Your task to perform on an android device: Search for Mexican restaurants on Maps Image 0: 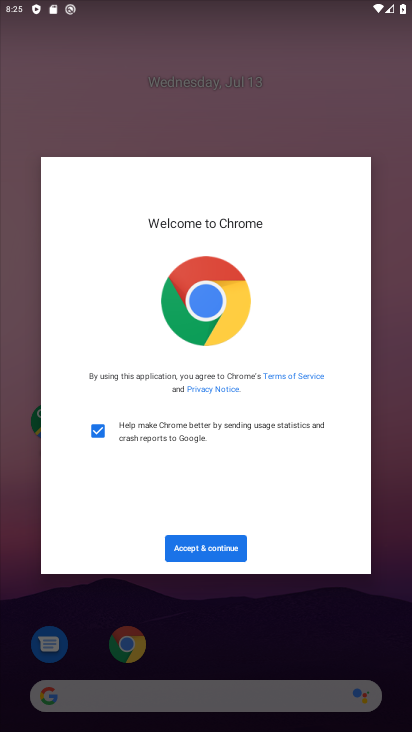
Step 0: press home button
Your task to perform on an android device: Search for Mexican restaurants on Maps Image 1: 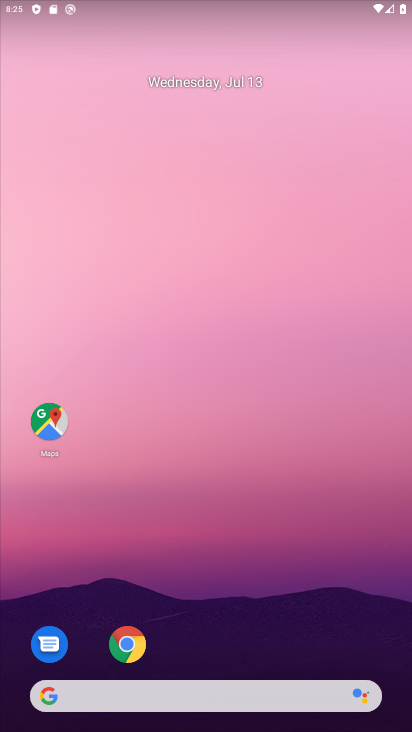
Step 1: click (47, 419)
Your task to perform on an android device: Search for Mexican restaurants on Maps Image 2: 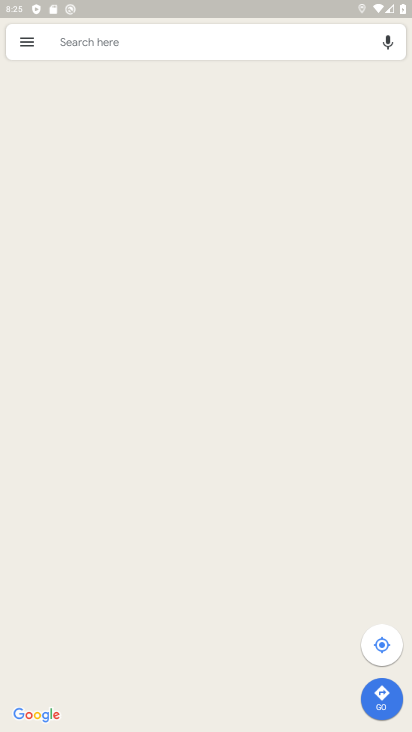
Step 2: click (161, 38)
Your task to perform on an android device: Search for Mexican restaurants on Maps Image 3: 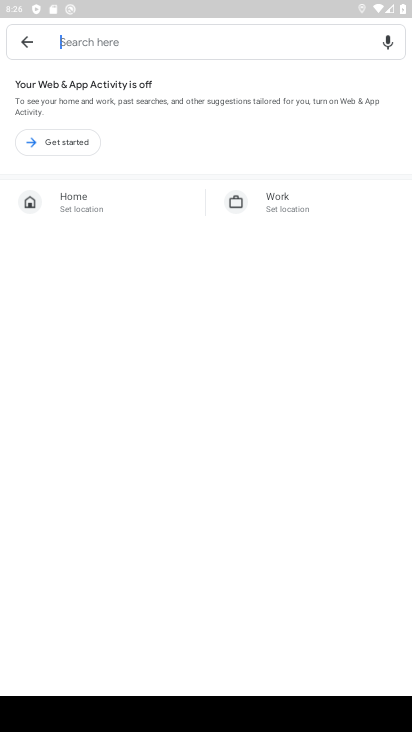
Step 3: type " Mexican restaurants"
Your task to perform on an android device: Search for Mexican restaurants on Maps Image 4: 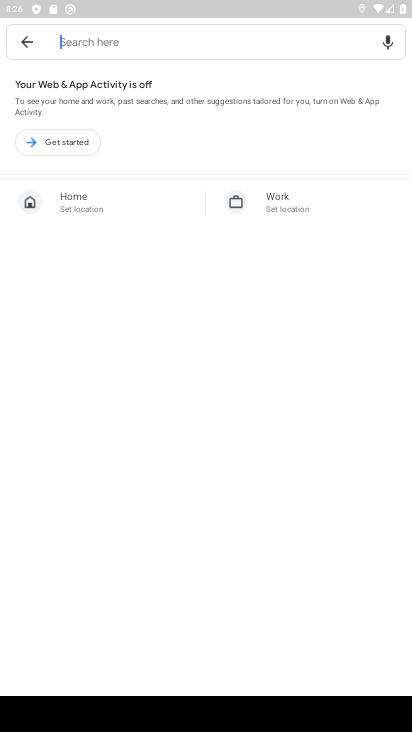
Step 4: click (77, 45)
Your task to perform on an android device: Search for Mexican restaurants on Maps Image 5: 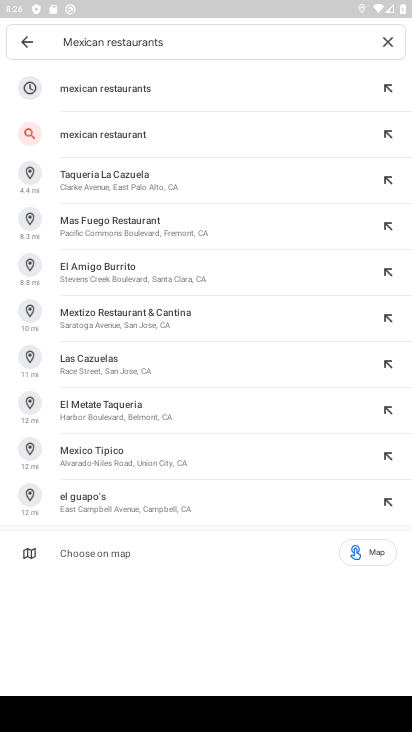
Step 5: press enter
Your task to perform on an android device: Search for Mexican restaurants on Maps Image 6: 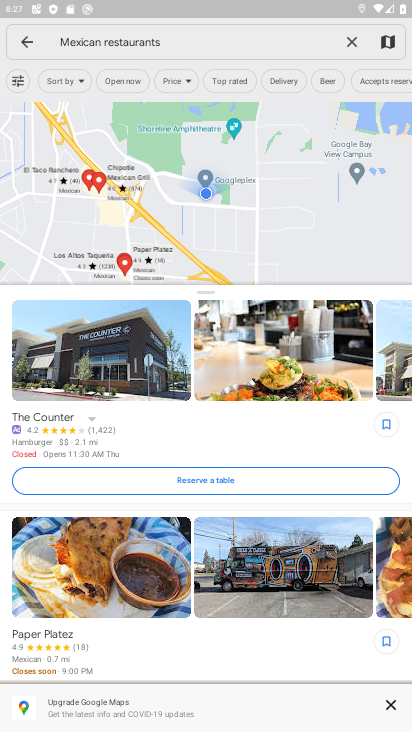
Step 6: task complete